Your task to perform on an android device: See recent photos Image 0: 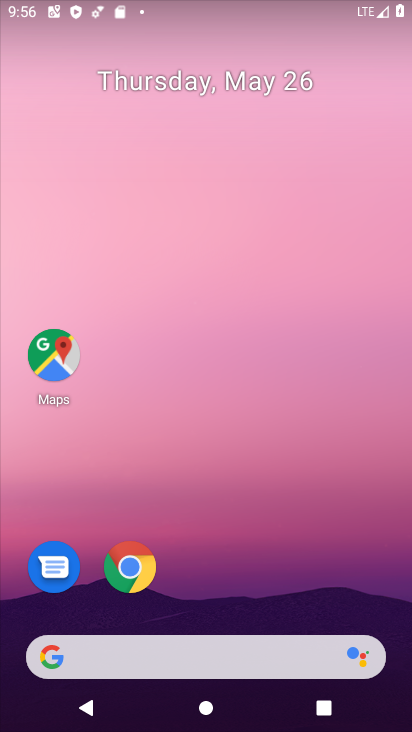
Step 0: drag from (274, 703) to (238, 152)
Your task to perform on an android device: See recent photos Image 1: 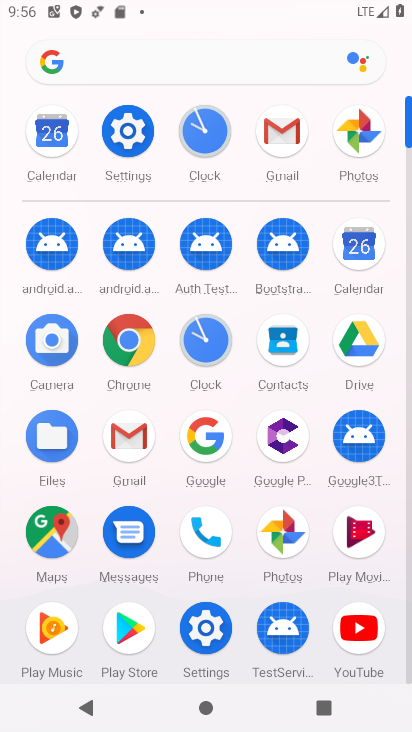
Step 1: click (295, 523)
Your task to perform on an android device: See recent photos Image 2: 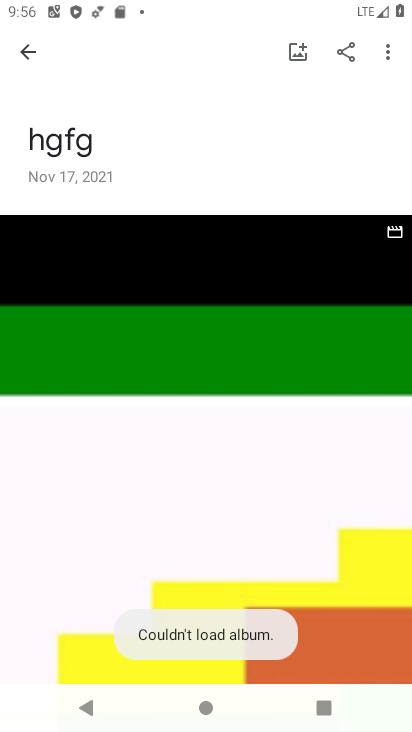
Step 2: click (33, 53)
Your task to perform on an android device: See recent photos Image 3: 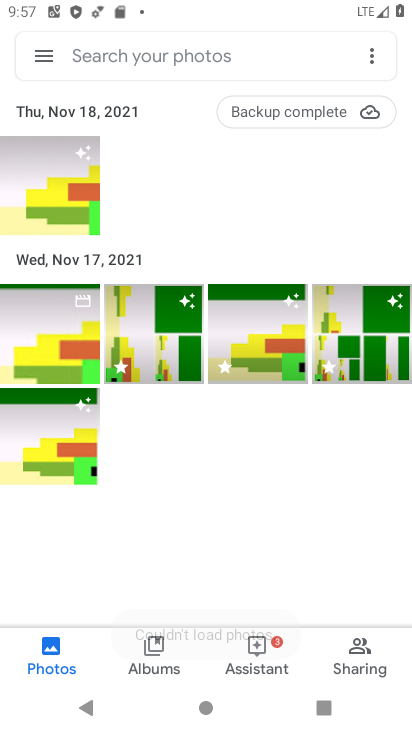
Step 3: task complete